Your task to perform on an android device: Turn off the flashlight Image 0: 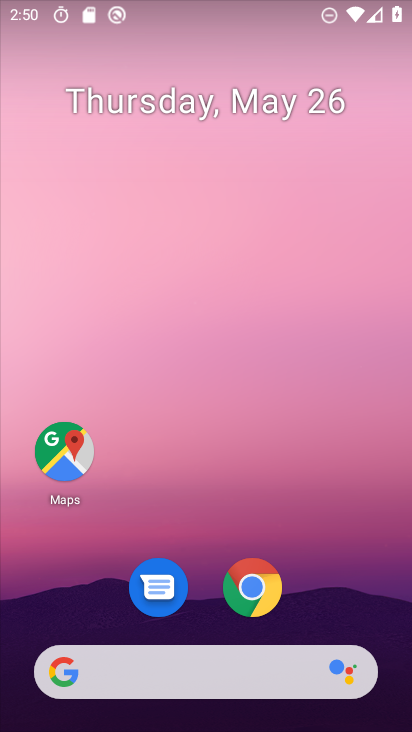
Step 0: drag from (337, 572) to (337, 214)
Your task to perform on an android device: Turn off the flashlight Image 1: 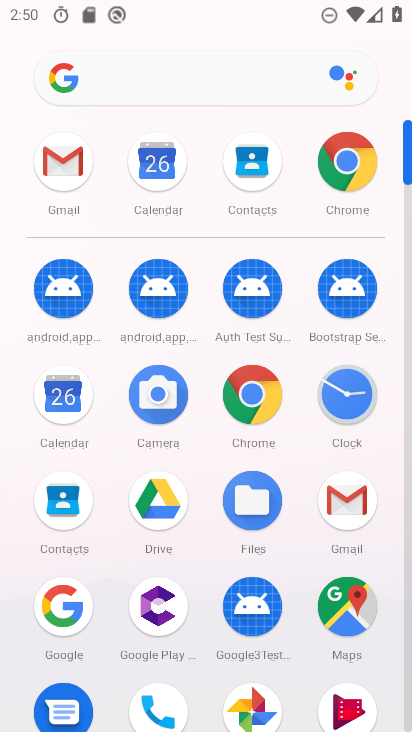
Step 1: drag from (234, 586) to (265, 236)
Your task to perform on an android device: Turn off the flashlight Image 2: 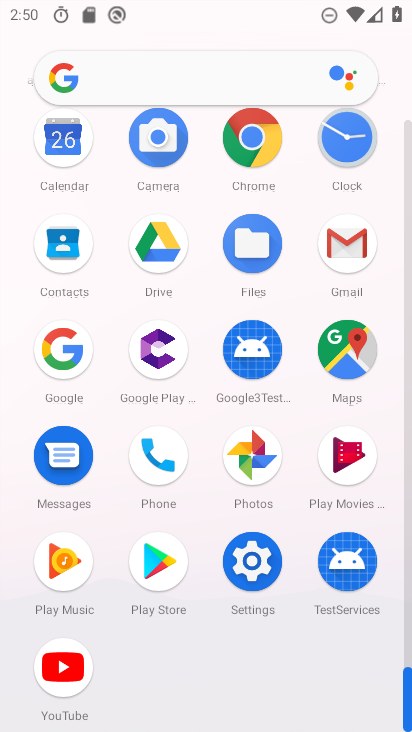
Step 2: click (249, 575)
Your task to perform on an android device: Turn off the flashlight Image 3: 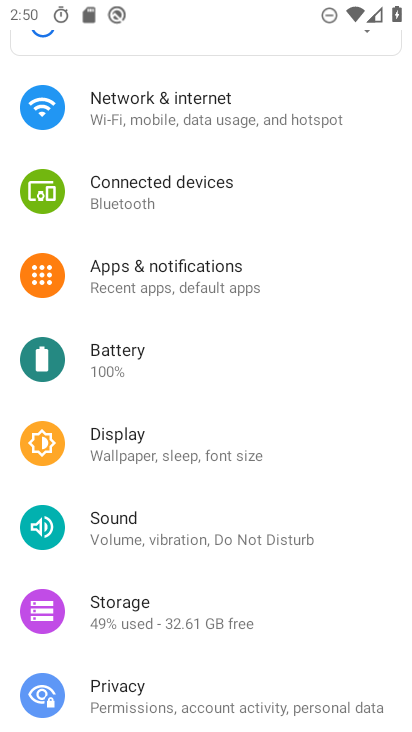
Step 3: drag from (180, 247) to (204, 521)
Your task to perform on an android device: Turn off the flashlight Image 4: 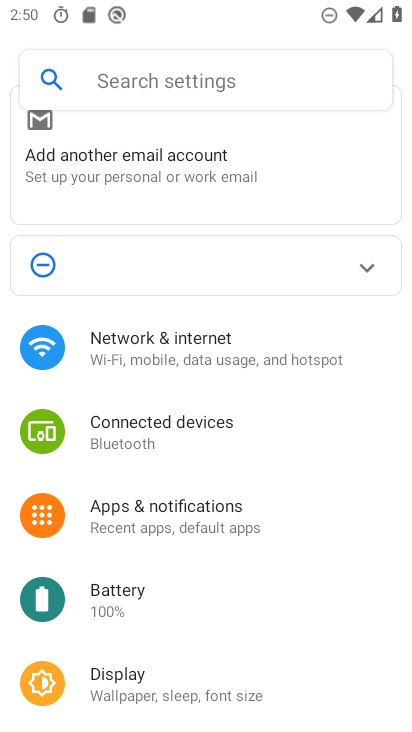
Step 4: drag from (200, 509) to (240, 279)
Your task to perform on an android device: Turn off the flashlight Image 5: 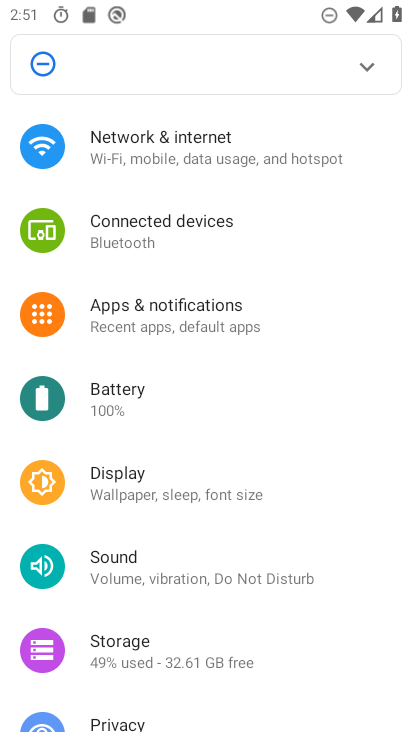
Step 5: click (150, 503)
Your task to perform on an android device: Turn off the flashlight Image 6: 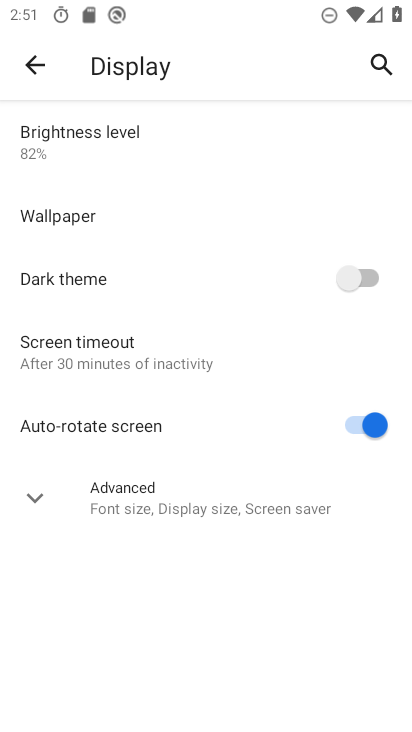
Step 6: click (80, 349)
Your task to perform on an android device: Turn off the flashlight Image 7: 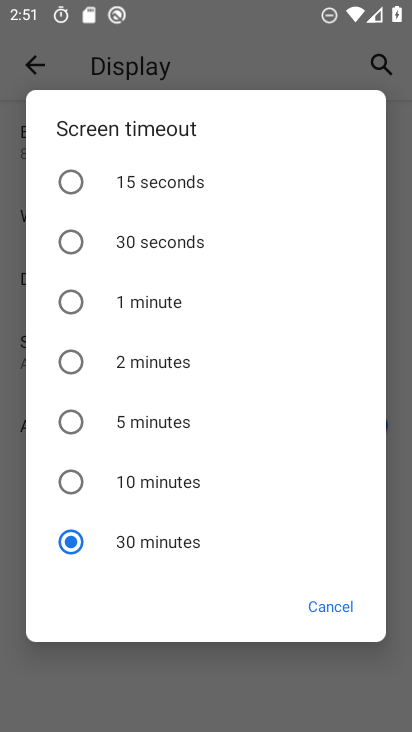
Step 7: task complete